Your task to perform on an android device: Open CNN.com Image 0: 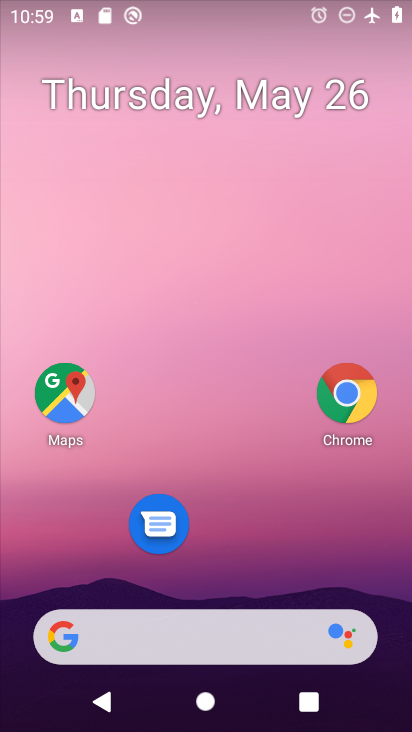
Step 0: drag from (273, 524) to (251, 0)
Your task to perform on an android device: Open CNN.com Image 1: 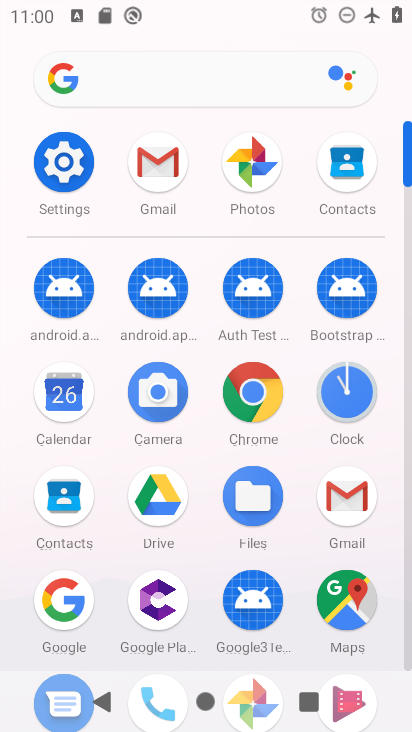
Step 1: click (73, 163)
Your task to perform on an android device: Open CNN.com Image 2: 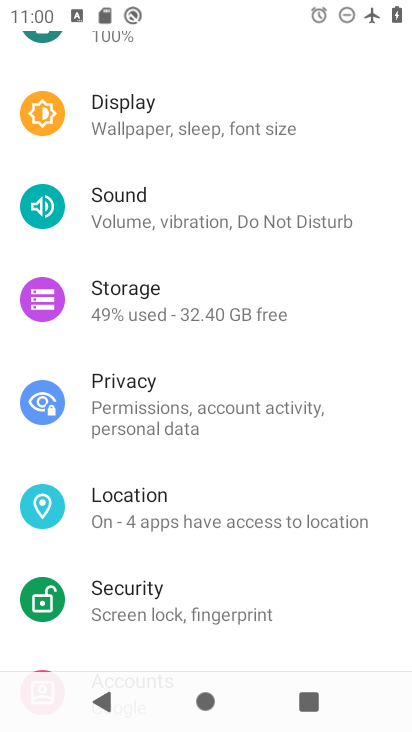
Step 2: drag from (193, 174) to (141, 682)
Your task to perform on an android device: Open CNN.com Image 3: 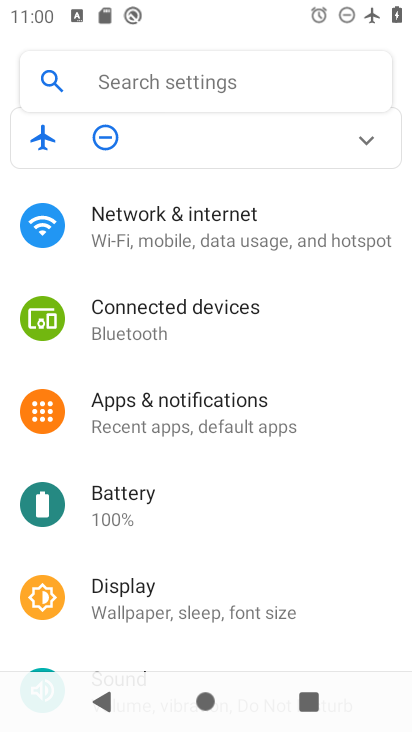
Step 3: click (215, 229)
Your task to perform on an android device: Open CNN.com Image 4: 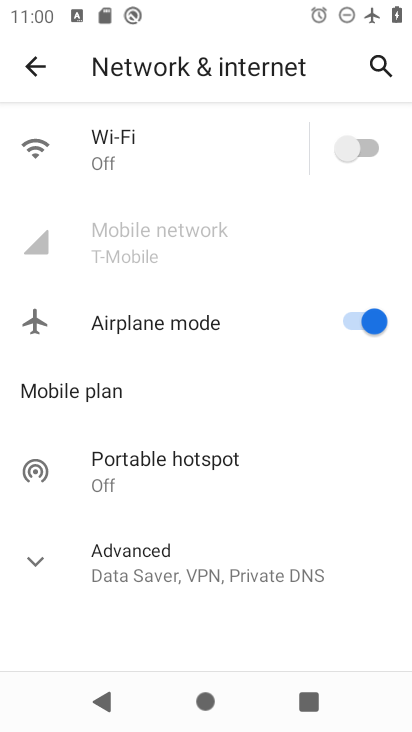
Step 4: click (361, 315)
Your task to perform on an android device: Open CNN.com Image 5: 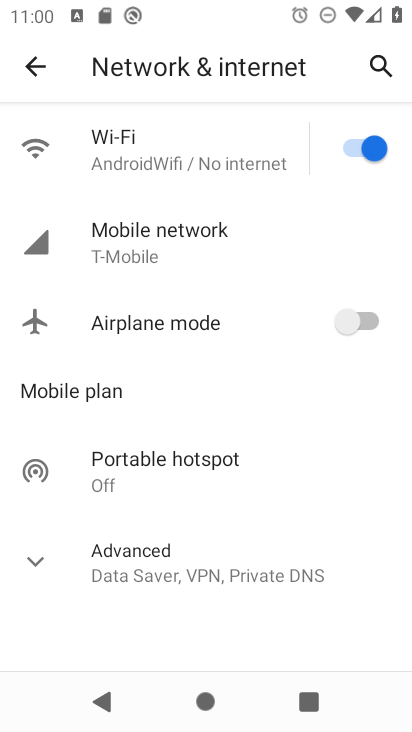
Step 5: press home button
Your task to perform on an android device: Open CNN.com Image 6: 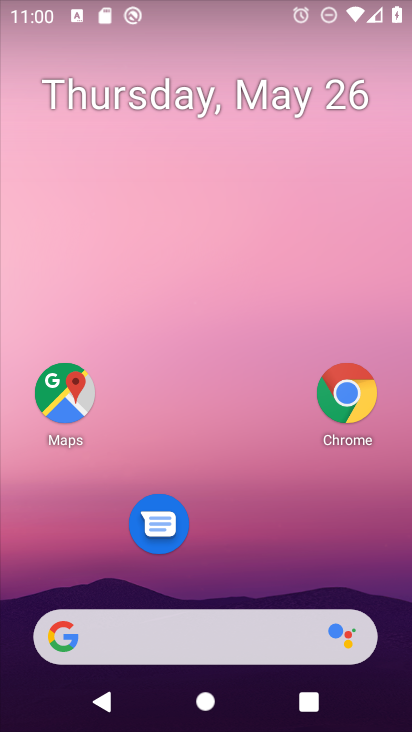
Step 6: click (274, 634)
Your task to perform on an android device: Open CNN.com Image 7: 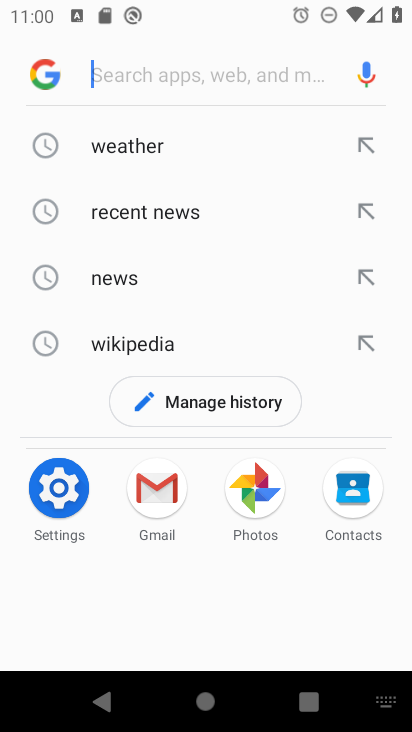
Step 7: type "cnn.com"
Your task to perform on an android device: Open CNN.com Image 8: 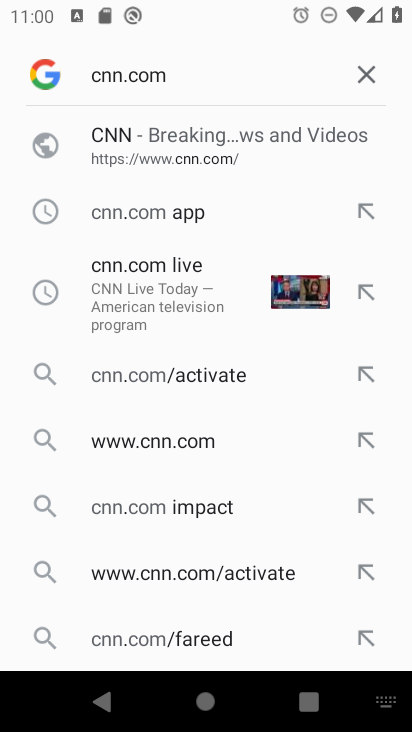
Step 8: click (114, 146)
Your task to perform on an android device: Open CNN.com Image 9: 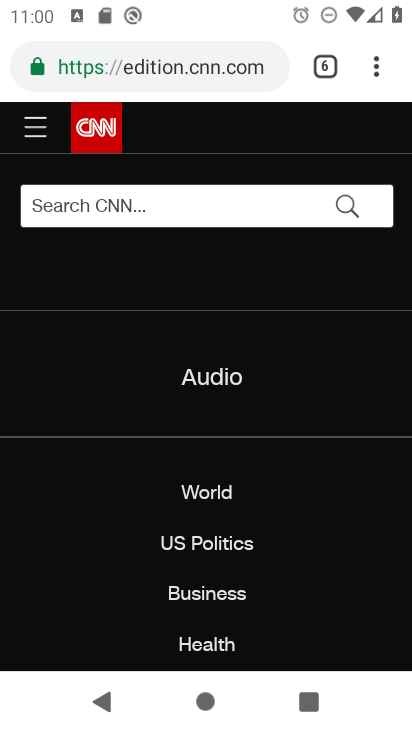
Step 9: task complete